Your task to perform on an android device: snooze an email in the gmail app Image 0: 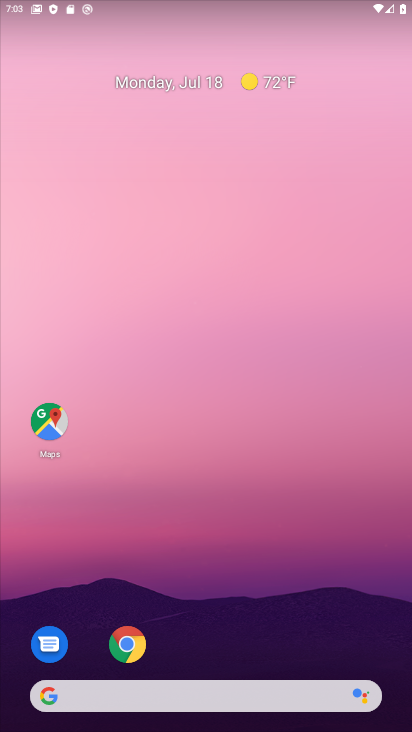
Step 0: drag from (353, 621) to (263, 38)
Your task to perform on an android device: snooze an email in the gmail app Image 1: 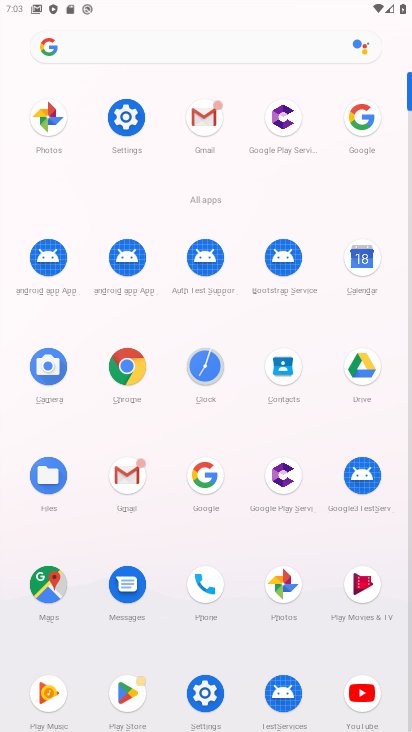
Step 1: click (128, 490)
Your task to perform on an android device: snooze an email in the gmail app Image 2: 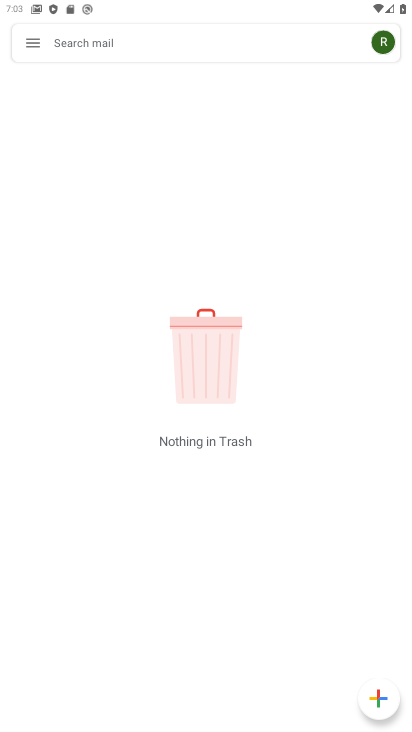
Step 2: click (30, 44)
Your task to perform on an android device: snooze an email in the gmail app Image 3: 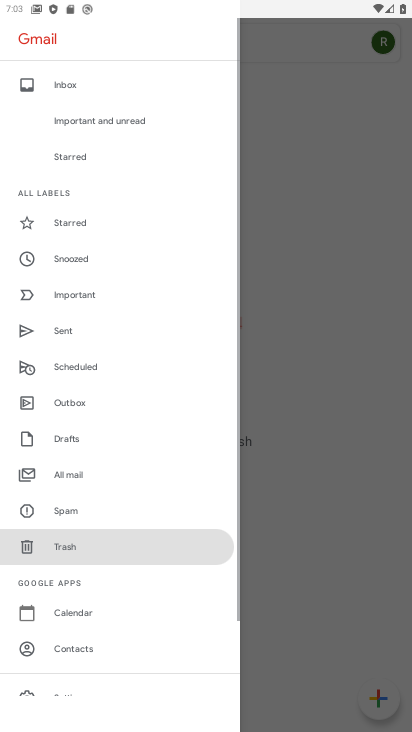
Step 3: click (61, 90)
Your task to perform on an android device: snooze an email in the gmail app Image 4: 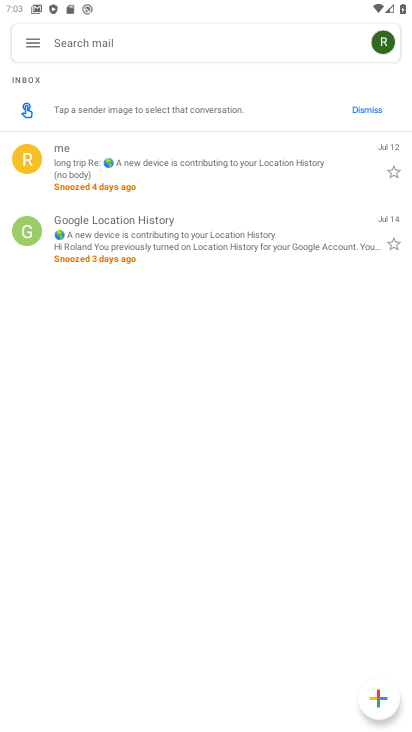
Step 4: click (115, 158)
Your task to perform on an android device: snooze an email in the gmail app Image 5: 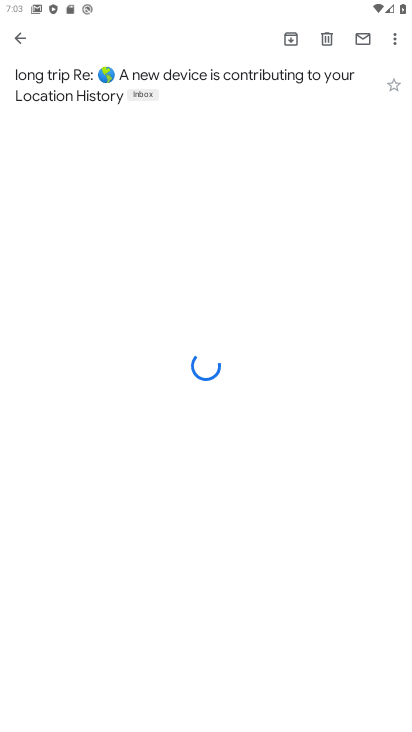
Step 5: click (392, 35)
Your task to perform on an android device: snooze an email in the gmail app Image 6: 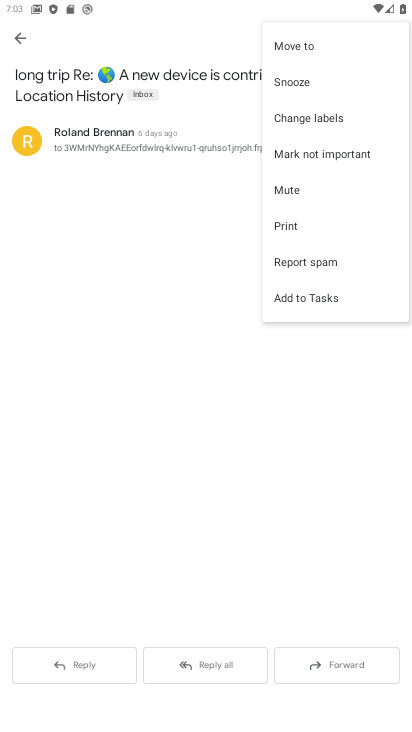
Step 6: click (306, 81)
Your task to perform on an android device: snooze an email in the gmail app Image 7: 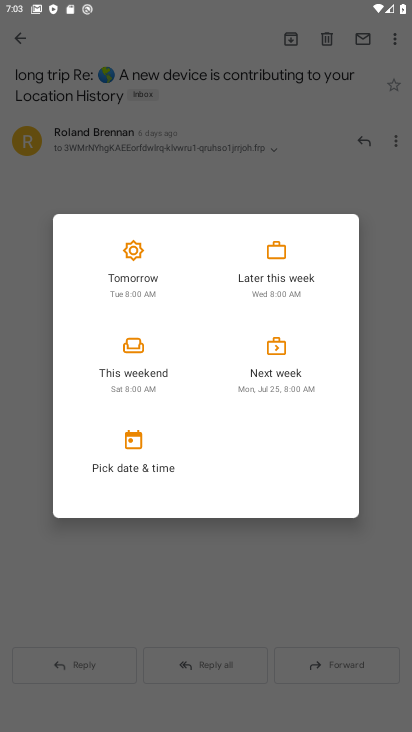
Step 7: click (274, 260)
Your task to perform on an android device: snooze an email in the gmail app Image 8: 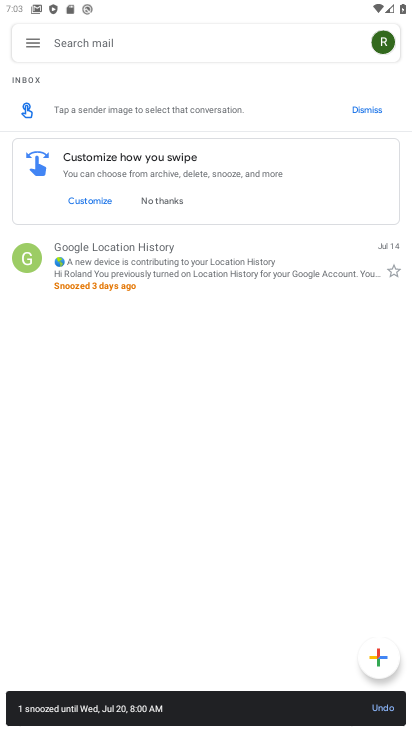
Step 8: task complete